Your task to perform on an android device: toggle wifi Image 0: 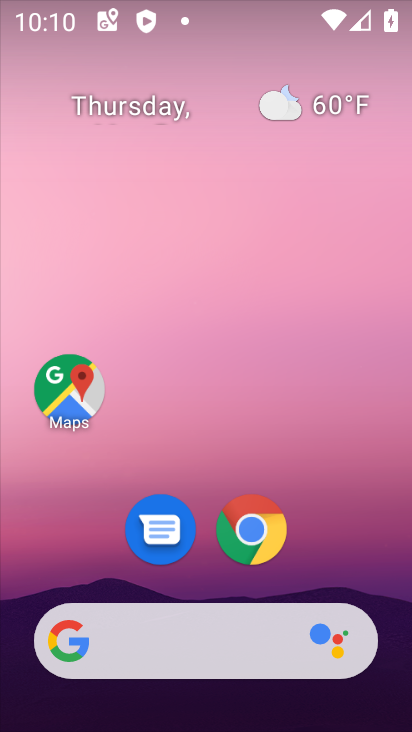
Step 0: drag from (260, 700) to (114, 94)
Your task to perform on an android device: toggle wifi Image 1: 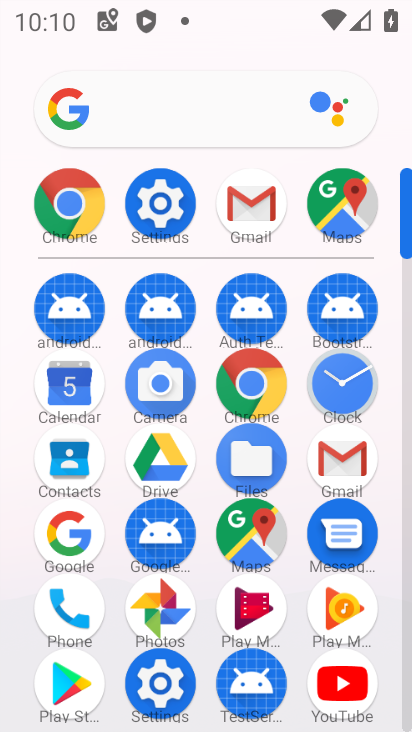
Step 1: click (150, 211)
Your task to perform on an android device: toggle wifi Image 2: 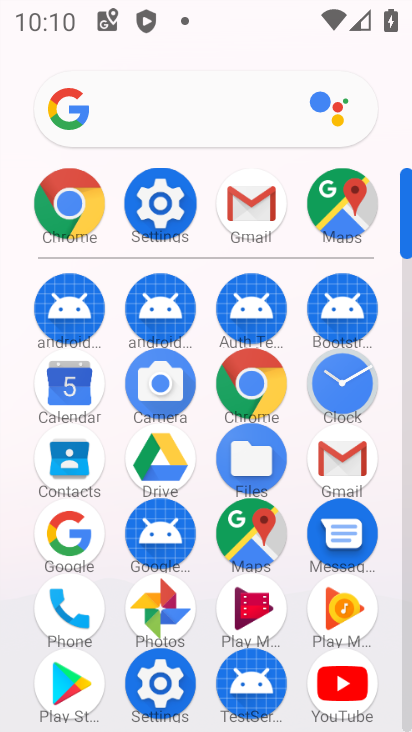
Step 2: click (150, 211)
Your task to perform on an android device: toggle wifi Image 3: 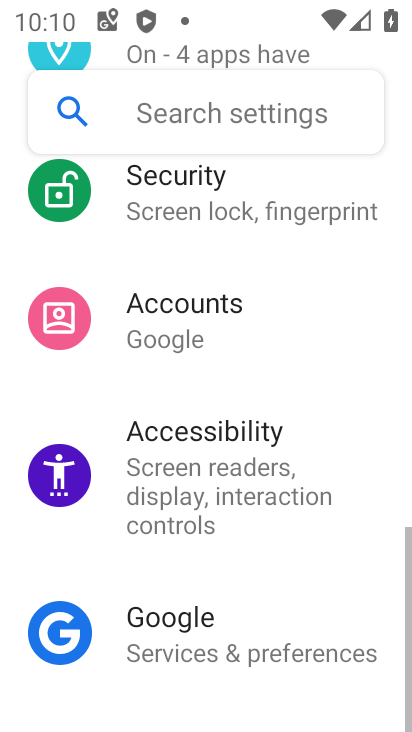
Step 3: click (152, 211)
Your task to perform on an android device: toggle wifi Image 4: 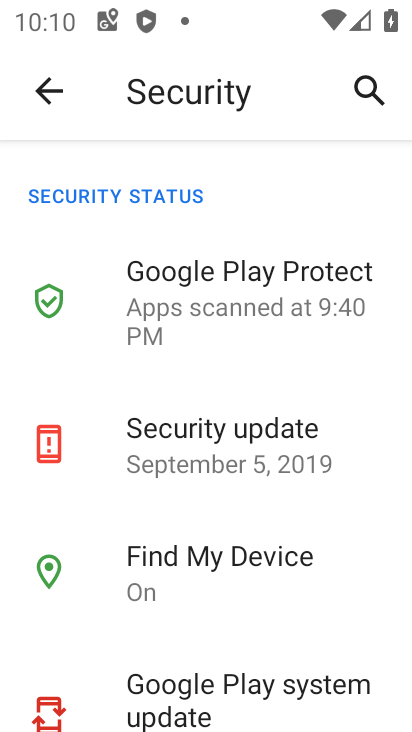
Step 4: click (38, 99)
Your task to perform on an android device: toggle wifi Image 5: 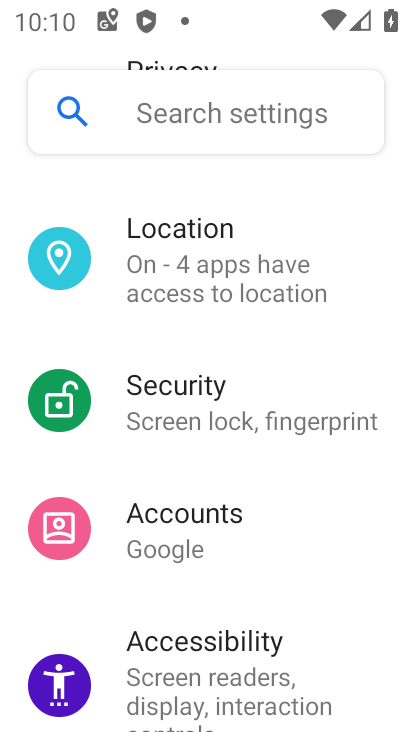
Step 5: drag from (208, 230) to (296, 652)
Your task to perform on an android device: toggle wifi Image 6: 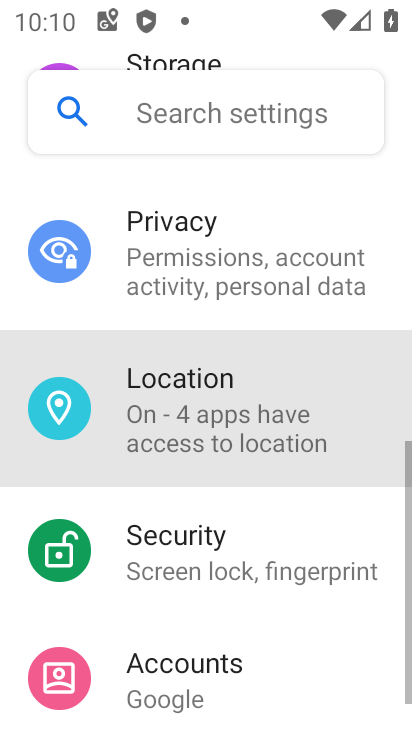
Step 6: drag from (215, 297) to (198, 620)
Your task to perform on an android device: toggle wifi Image 7: 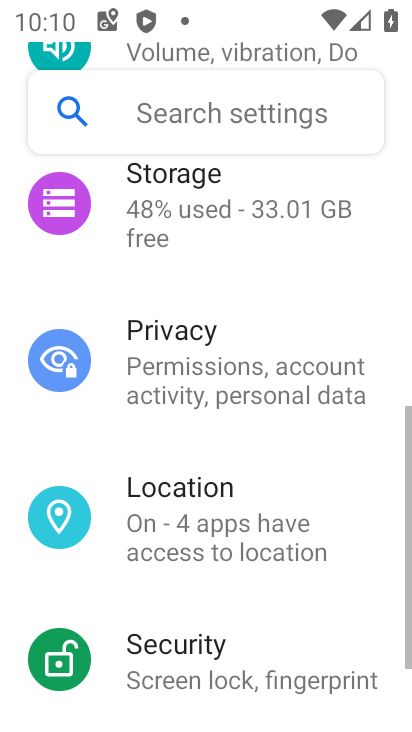
Step 7: drag from (151, 314) to (221, 684)
Your task to perform on an android device: toggle wifi Image 8: 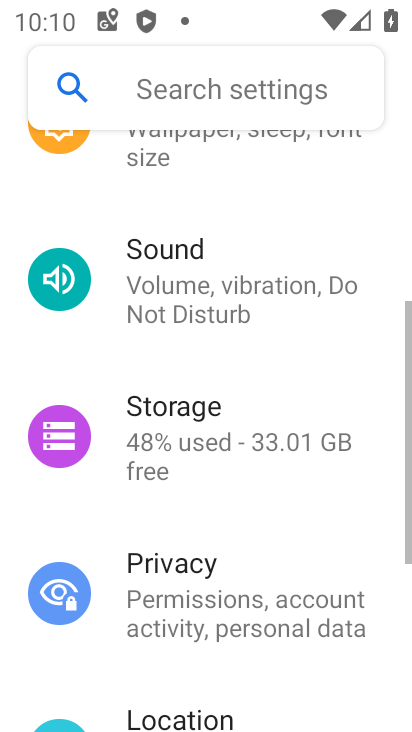
Step 8: drag from (165, 281) to (275, 601)
Your task to perform on an android device: toggle wifi Image 9: 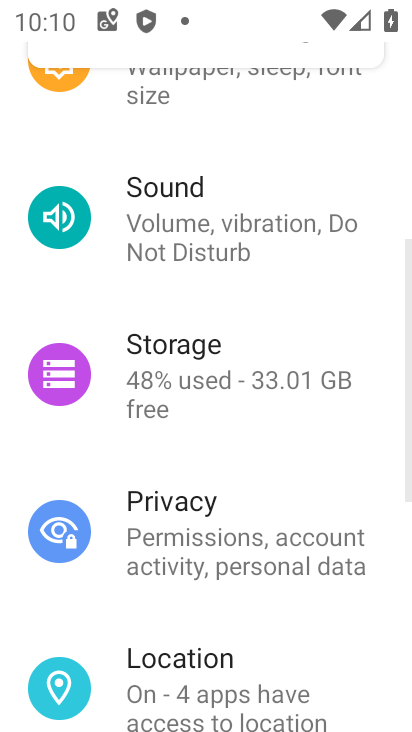
Step 9: drag from (253, 388) to (312, 651)
Your task to perform on an android device: toggle wifi Image 10: 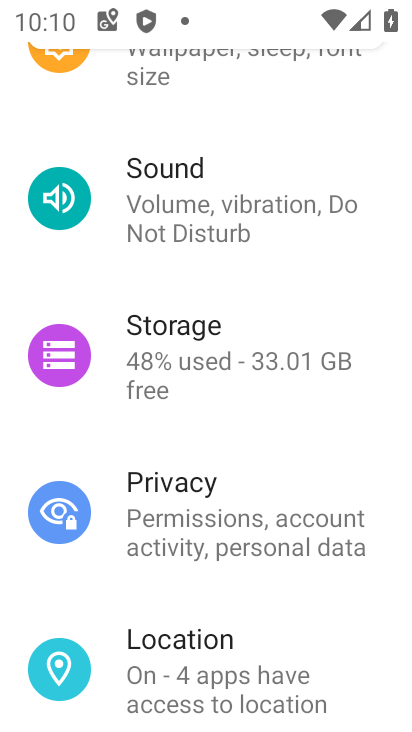
Step 10: drag from (204, 271) to (188, 324)
Your task to perform on an android device: toggle wifi Image 11: 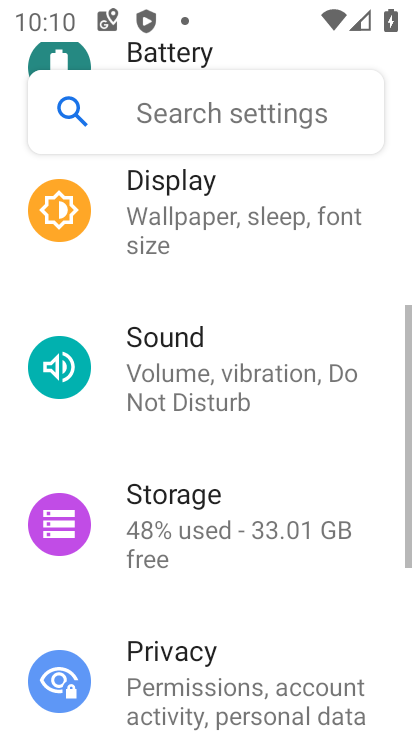
Step 11: drag from (130, 170) to (238, 551)
Your task to perform on an android device: toggle wifi Image 12: 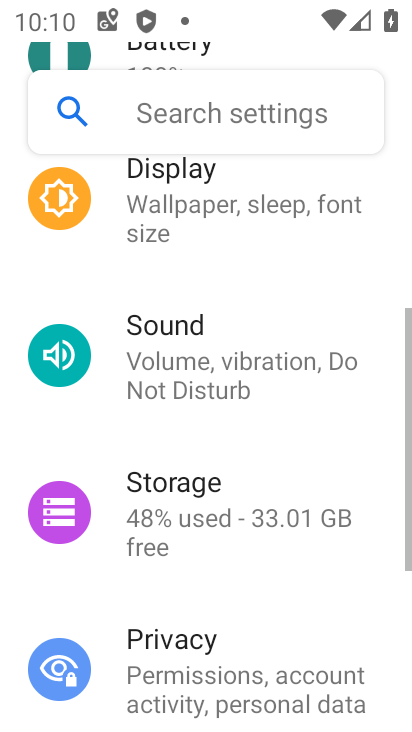
Step 12: drag from (141, 149) to (222, 525)
Your task to perform on an android device: toggle wifi Image 13: 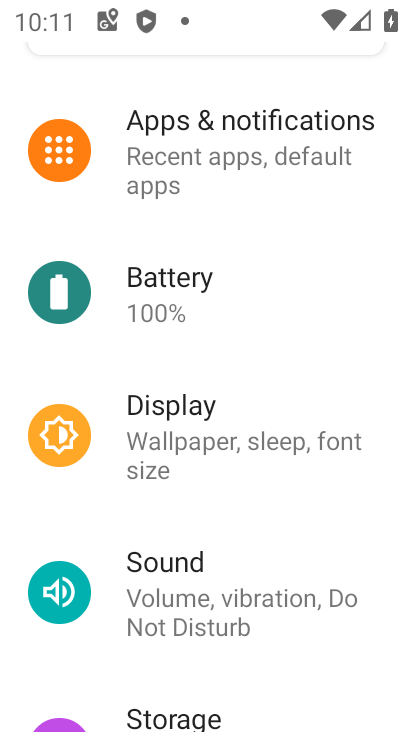
Step 13: drag from (251, 297) to (272, 492)
Your task to perform on an android device: toggle wifi Image 14: 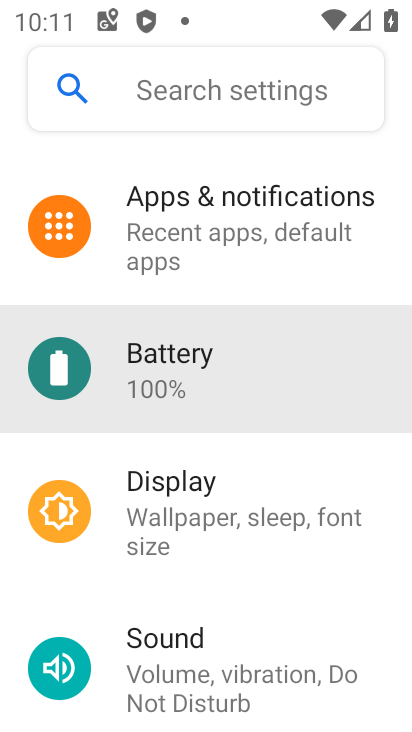
Step 14: drag from (211, 70) to (245, 543)
Your task to perform on an android device: toggle wifi Image 15: 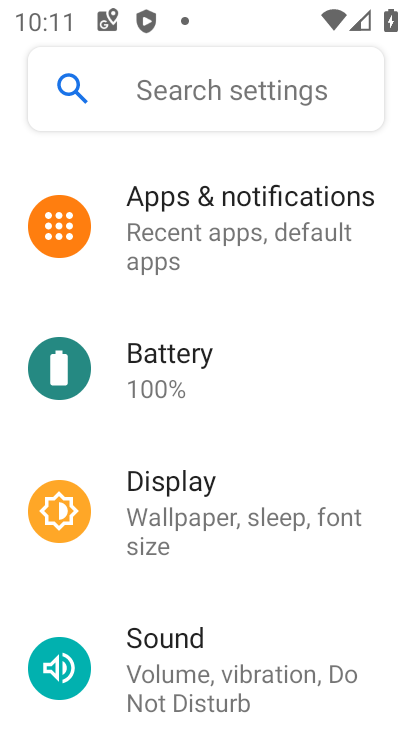
Step 15: drag from (271, 257) to (319, 529)
Your task to perform on an android device: toggle wifi Image 16: 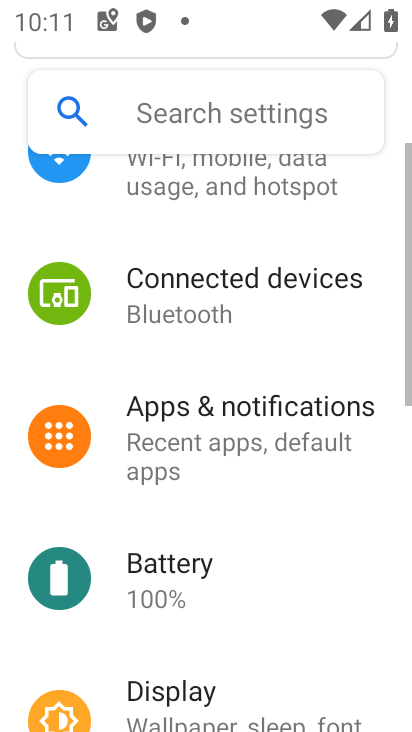
Step 16: drag from (204, 196) to (219, 612)
Your task to perform on an android device: toggle wifi Image 17: 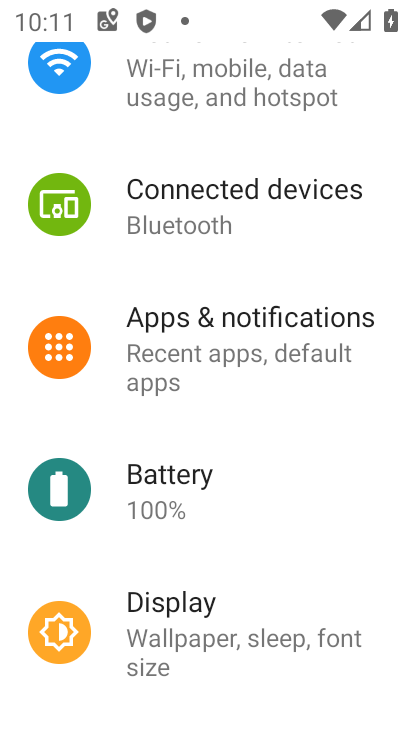
Step 17: drag from (222, 189) to (239, 488)
Your task to perform on an android device: toggle wifi Image 18: 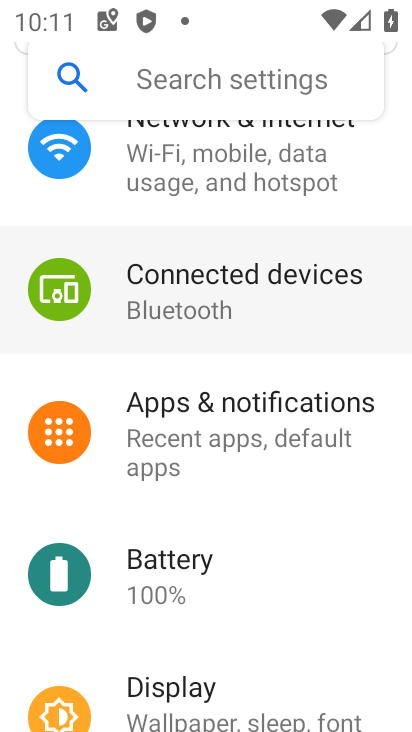
Step 18: drag from (168, 122) to (285, 528)
Your task to perform on an android device: toggle wifi Image 19: 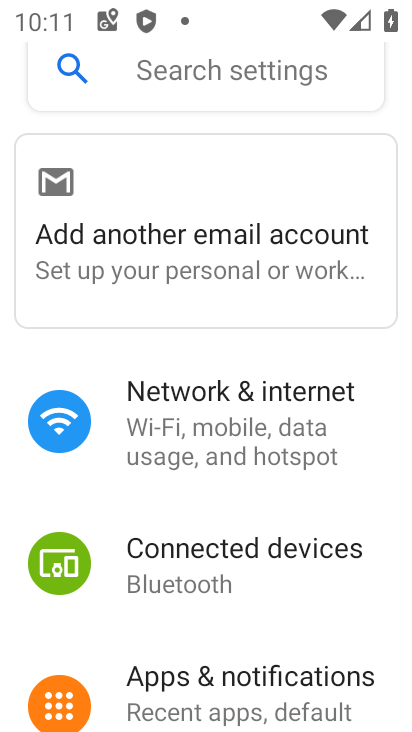
Step 19: click (230, 436)
Your task to perform on an android device: toggle wifi Image 20: 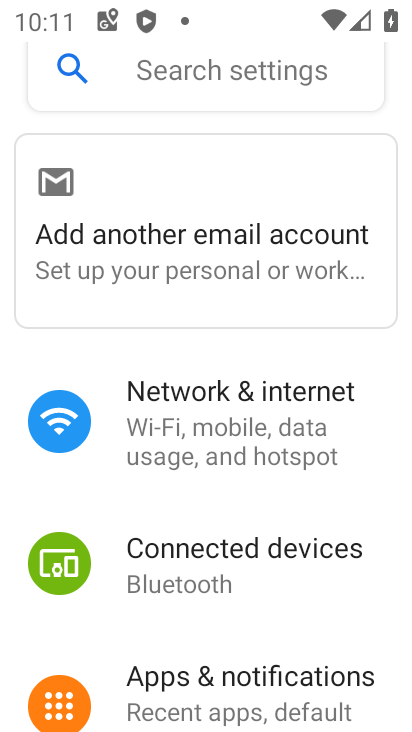
Step 20: click (227, 429)
Your task to perform on an android device: toggle wifi Image 21: 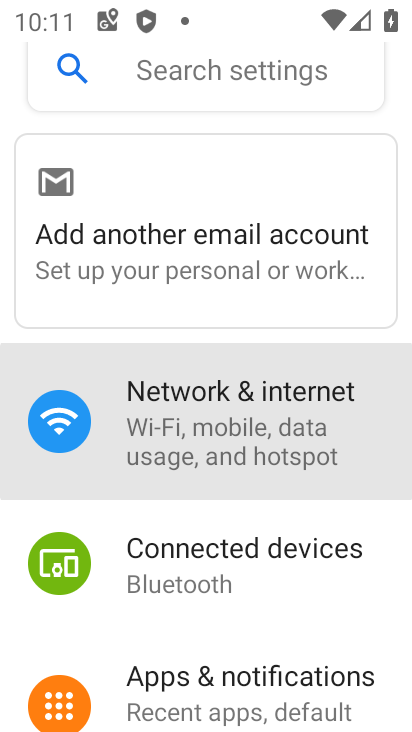
Step 21: click (229, 427)
Your task to perform on an android device: toggle wifi Image 22: 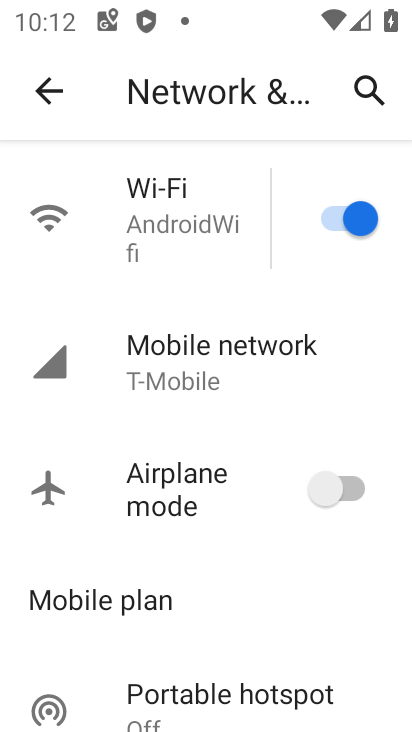
Step 22: task complete